Your task to perform on an android device: Is it going to rain tomorrow? Image 0: 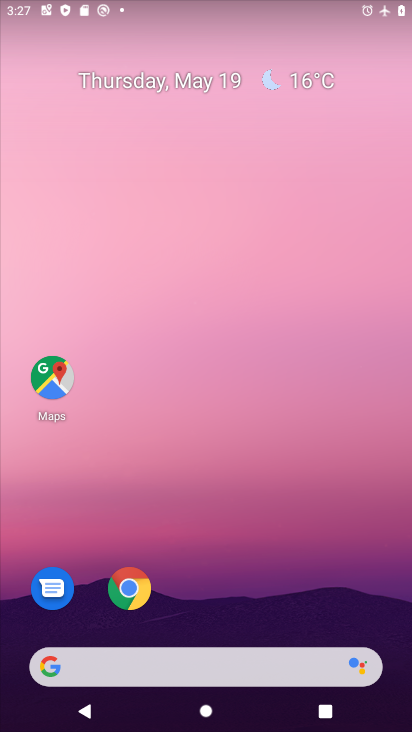
Step 0: click (319, 79)
Your task to perform on an android device: Is it going to rain tomorrow? Image 1: 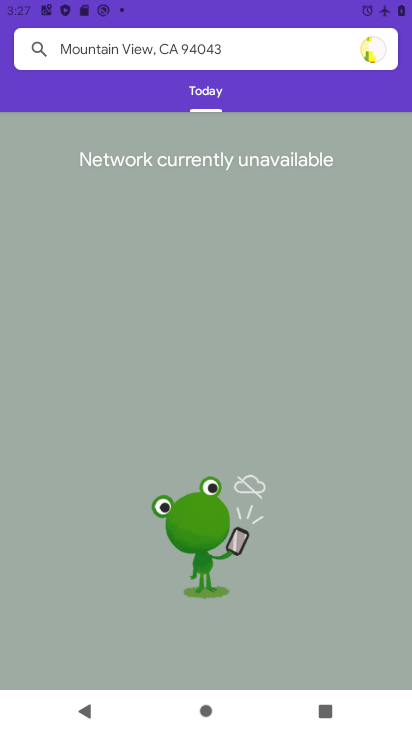
Step 1: click (63, 96)
Your task to perform on an android device: Is it going to rain tomorrow? Image 2: 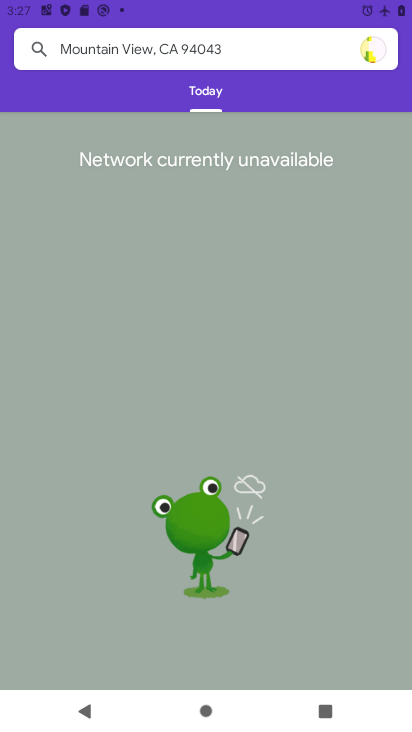
Step 2: task complete